Your task to perform on an android device: toggle priority inbox in the gmail app Image 0: 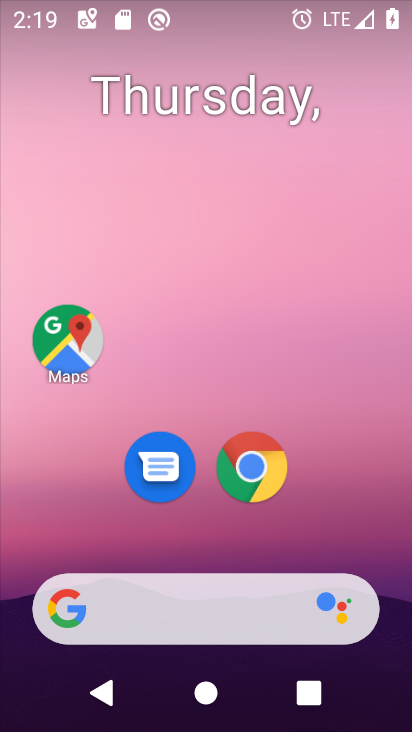
Step 0: drag from (174, 525) to (139, 52)
Your task to perform on an android device: toggle priority inbox in the gmail app Image 1: 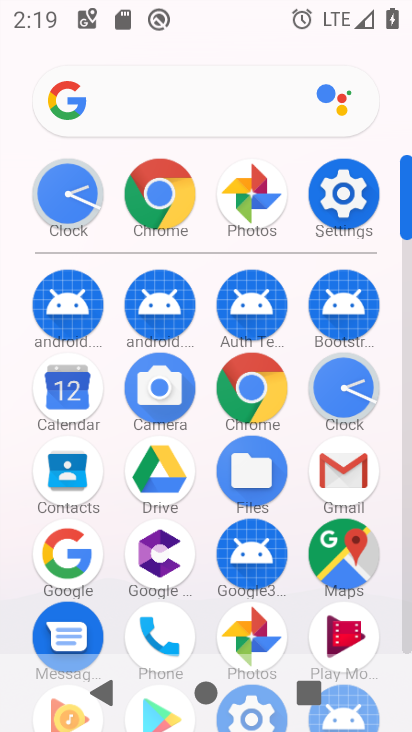
Step 1: click (335, 489)
Your task to perform on an android device: toggle priority inbox in the gmail app Image 2: 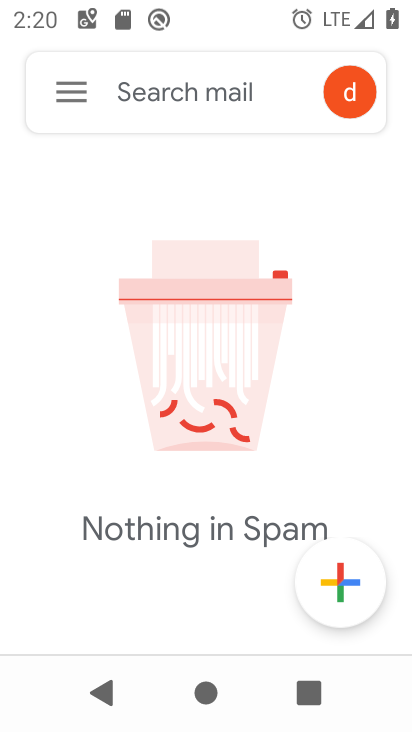
Step 2: click (72, 92)
Your task to perform on an android device: toggle priority inbox in the gmail app Image 3: 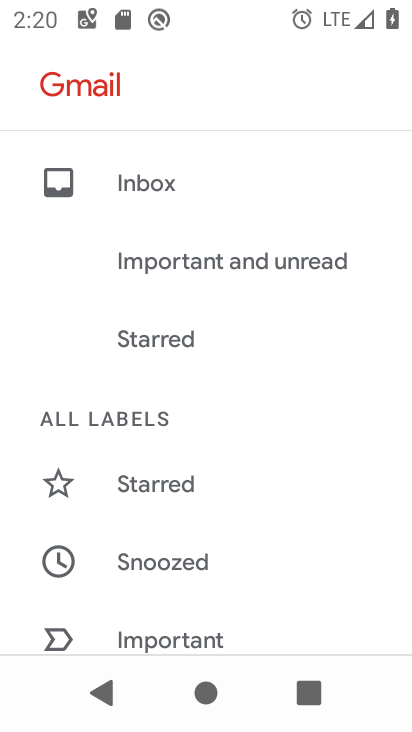
Step 3: drag from (162, 528) to (157, 8)
Your task to perform on an android device: toggle priority inbox in the gmail app Image 4: 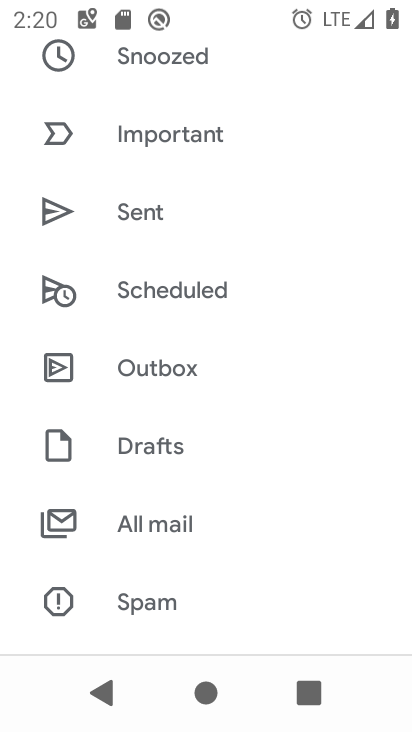
Step 4: drag from (176, 490) to (112, 32)
Your task to perform on an android device: toggle priority inbox in the gmail app Image 5: 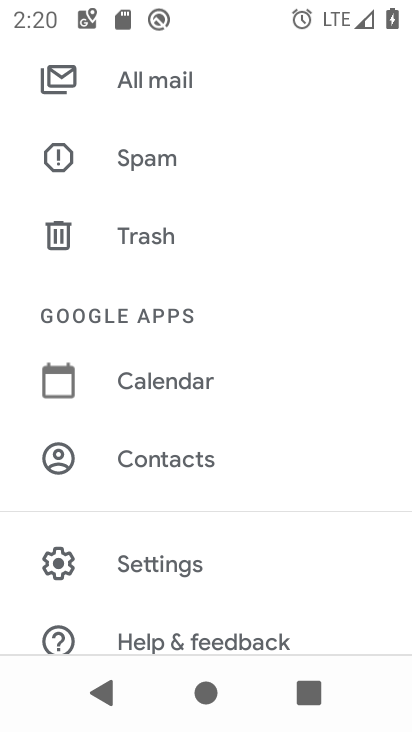
Step 5: click (140, 572)
Your task to perform on an android device: toggle priority inbox in the gmail app Image 6: 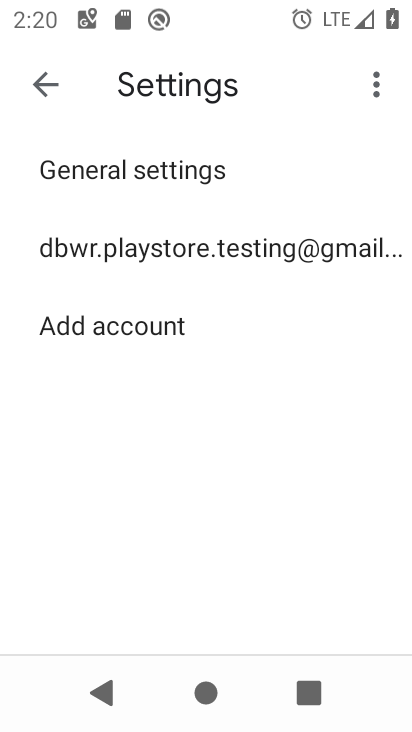
Step 6: click (202, 239)
Your task to perform on an android device: toggle priority inbox in the gmail app Image 7: 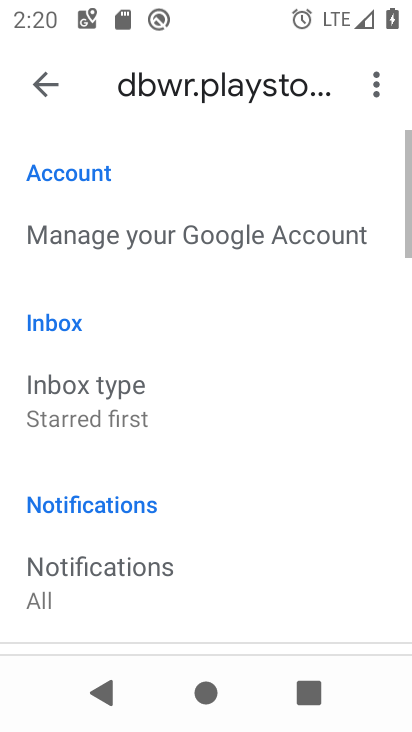
Step 7: click (116, 385)
Your task to perform on an android device: toggle priority inbox in the gmail app Image 8: 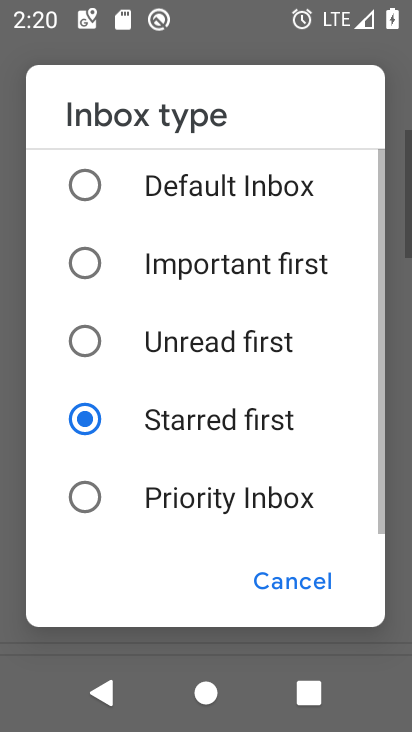
Step 8: click (102, 484)
Your task to perform on an android device: toggle priority inbox in the gmail app Image 9: 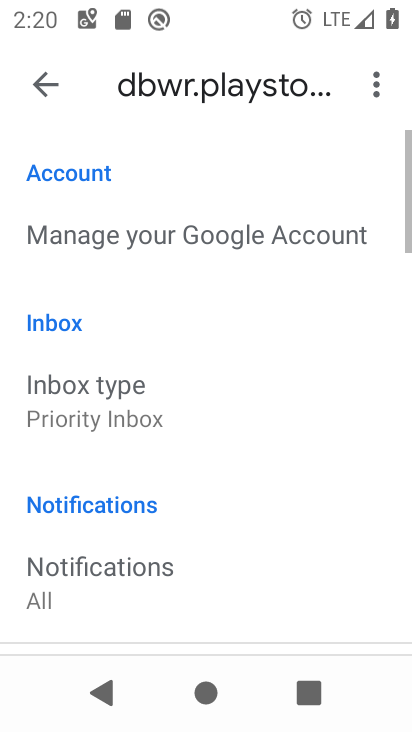
Step 9: task complete